Your task to perform on an android device: open a bookmark in the chrome app Image 0: 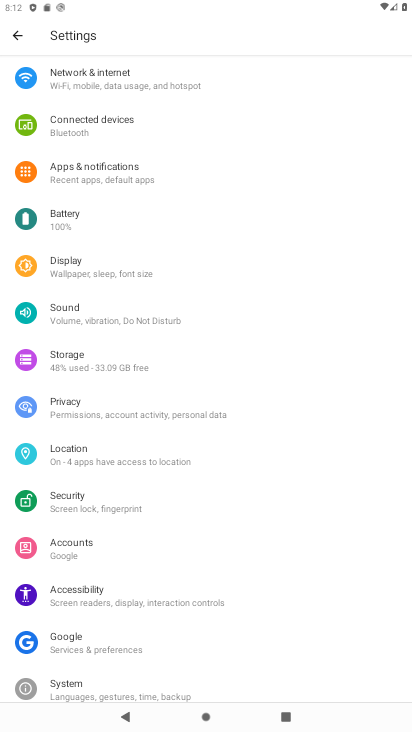
Step 0: press home button
Your task to perform on an android device: open a bookmark in the chrome app Image 1: 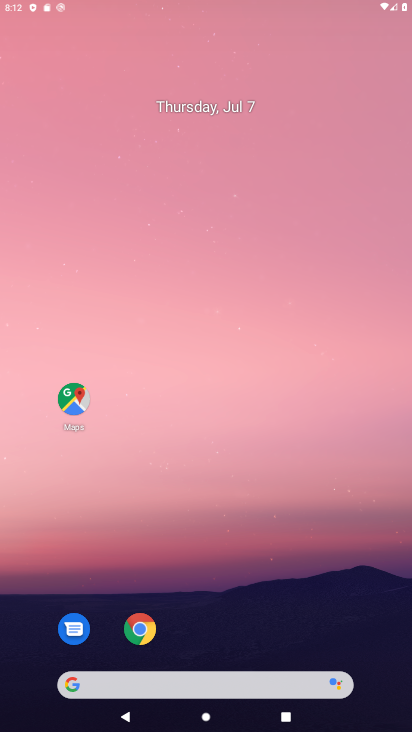
Step 1: drag from (328, 696) to (376, 4)
Your task to perform on an android device: open a bookmark in the chrome app Image 2: 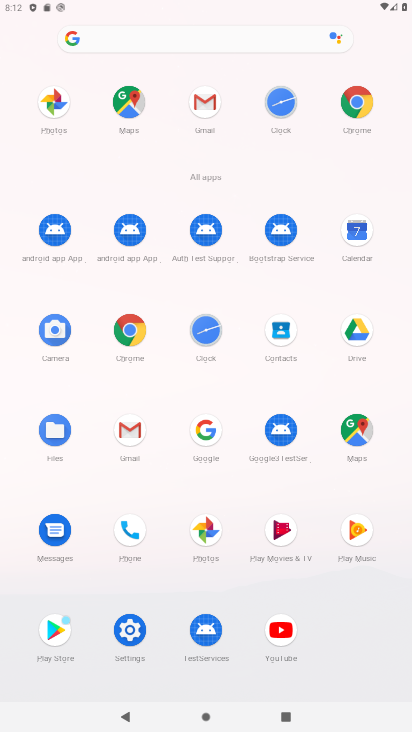
Step 2: click (132, 328)
Your task to perform on an android device: open a bookmark in the chrome app Image 3: 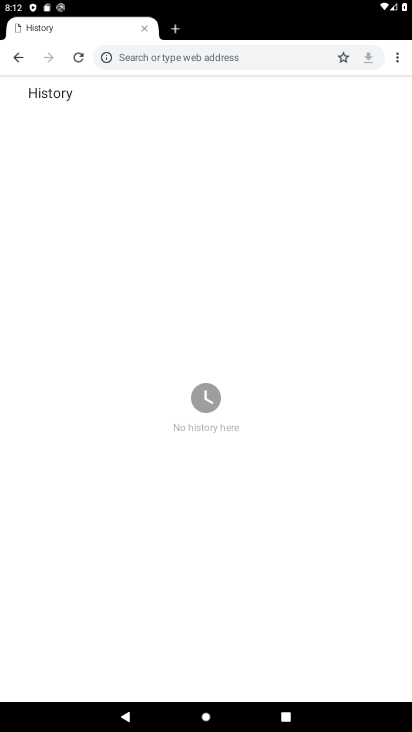
Step 3: task complete